Your task to perform on an android device: Go to Wikipedia Image 0: 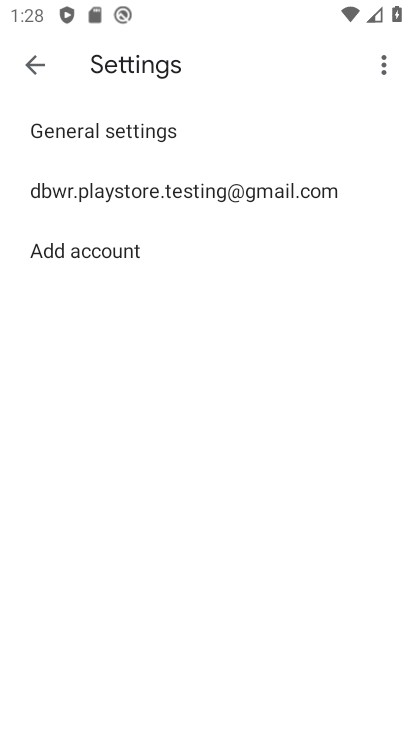
Step 0: press back button
Your task to perform on an android device: Go to Wikipedia Image 1: 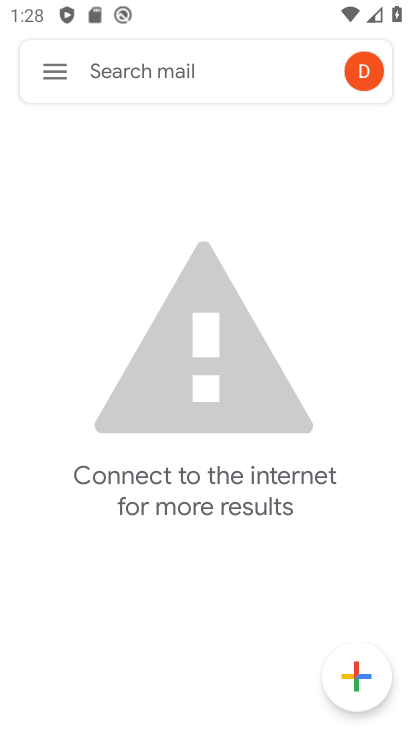
Step 1: press home button
Your task to perform on an android device: Go to Wikipedia Image 2: 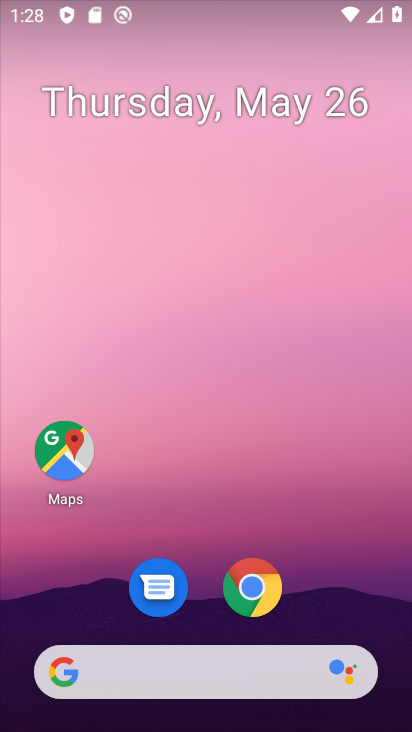
Step 2: drag from (328, 573) to (190, 34)
Your task to perform on an android device: Go to Wikipedia Image 3: 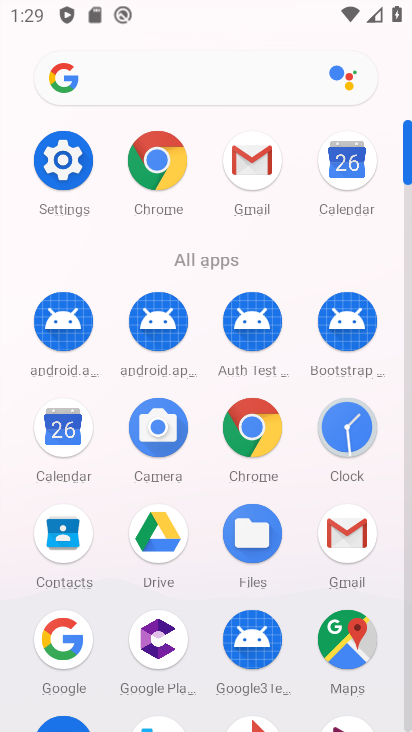
Step 3: click (152, 165)
Your task to perform on an android device: Go to Wikipedia Image 4: 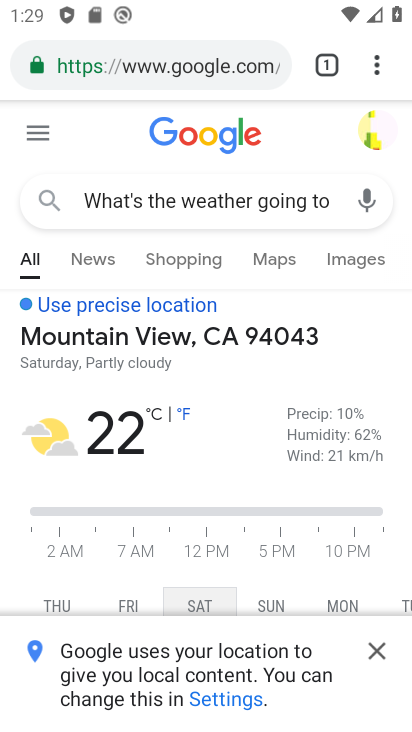
Step 4: click (159, 56)
Your task to perform on an android device: Go to Wikipedia Image 5: 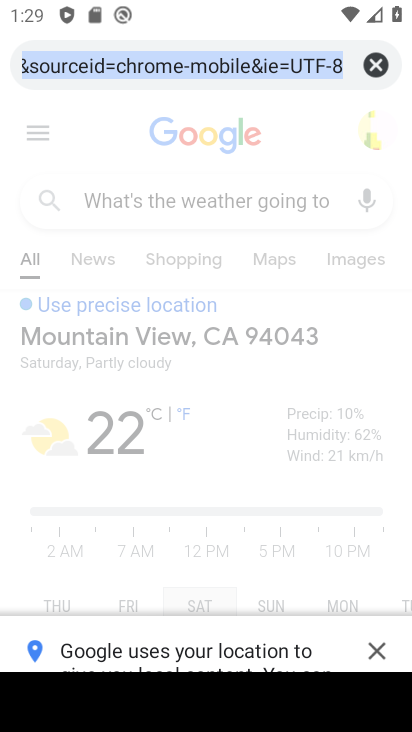
Step 5: click (376, 60)
Your task to perform on an android device: Go to Wikipedia Image 6: 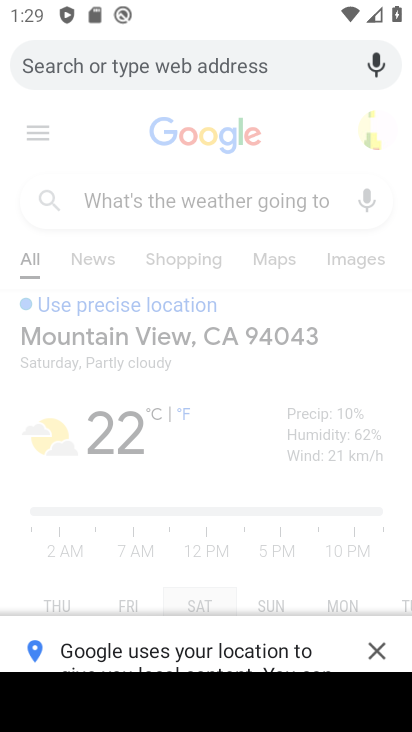
Step 6: type "Wikipedia"
Your task to perform on an android device: Go to Wikipedia Image 7: 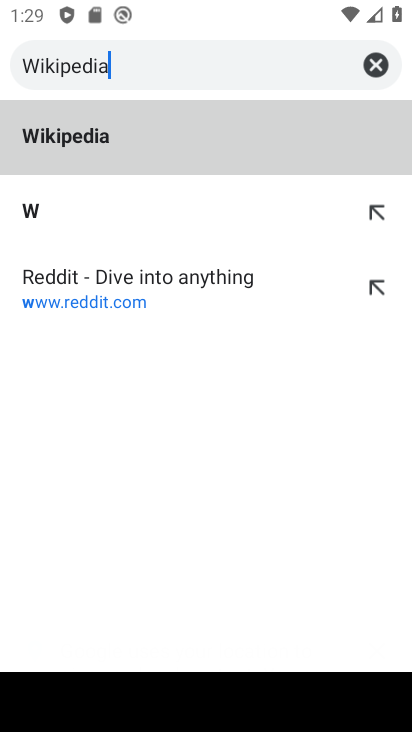
Step 7: type ""
Your task to perform on an android device: Go to Wikipedia Image 8: 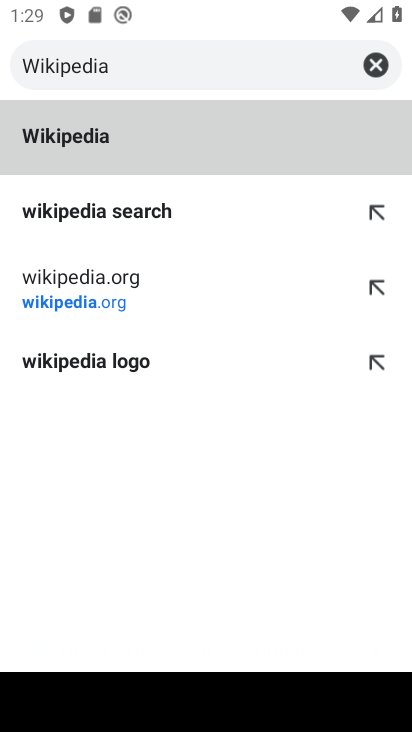
Step 8: click (63, 296)
Your task to perform on an android device: Go to Wikipedia Image 9: 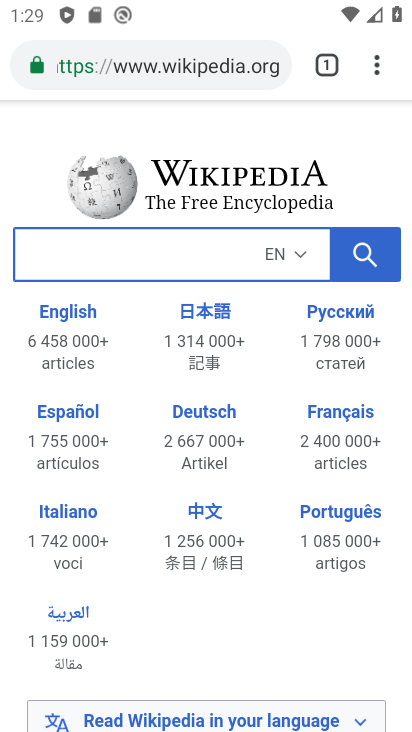
Step 9: task complete